Your task to perform on an android device: Open CNN.com Image 0: 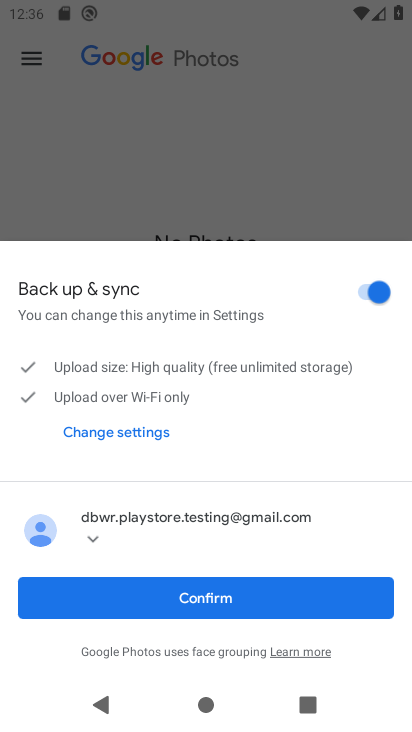
Step 0: press home button
Your task to perform on an android device: Open CNN.com Image 1: 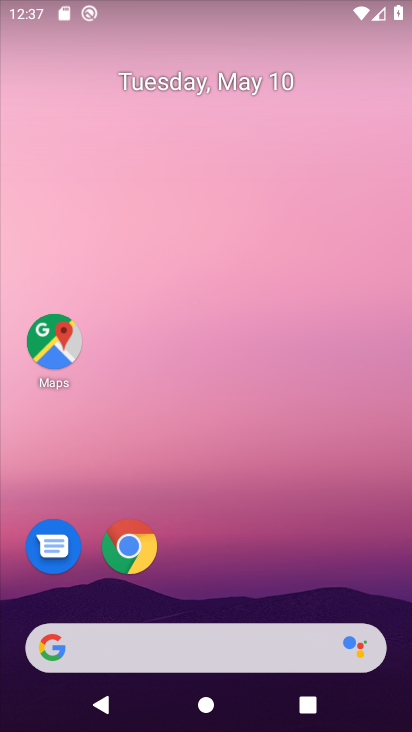
Step 1: click (129, 541)
Your task to perform on an android device: Open CNN.com Image 2: 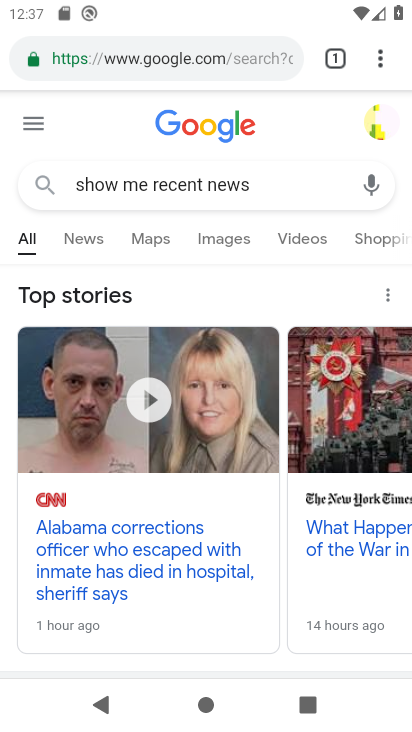
Step 2: drag from (371, 67) to (267, 116)
Your task to perform on an android device: Open CNN.com Image 3: 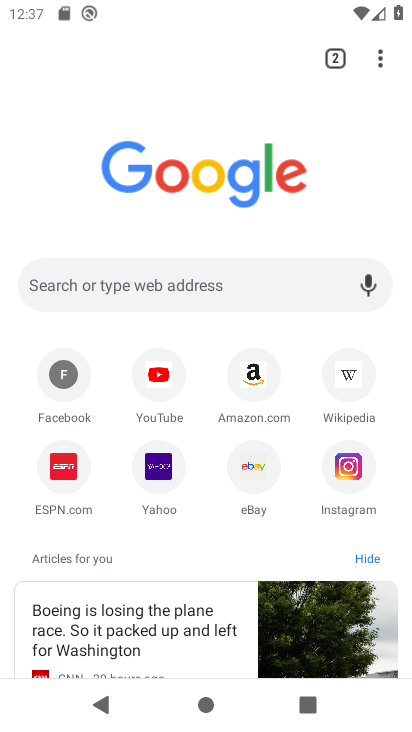
Step 3: click (226, 270)
Your task to perform on an android device: Open CNN.com Image 4: 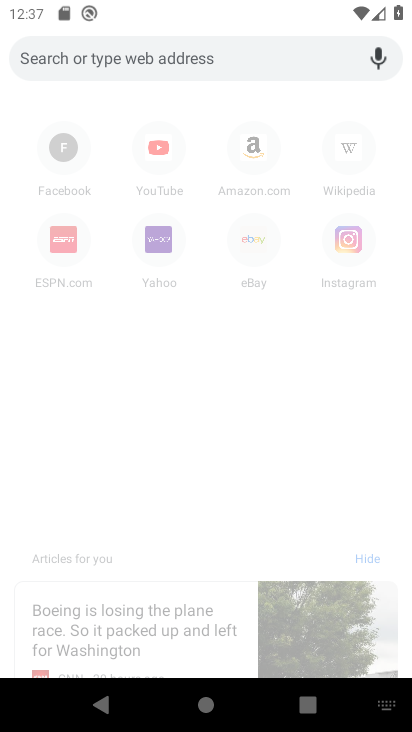
Step 4: type " CNN.com"
Your task to perform on an android device: Open CNN.com Image 5: 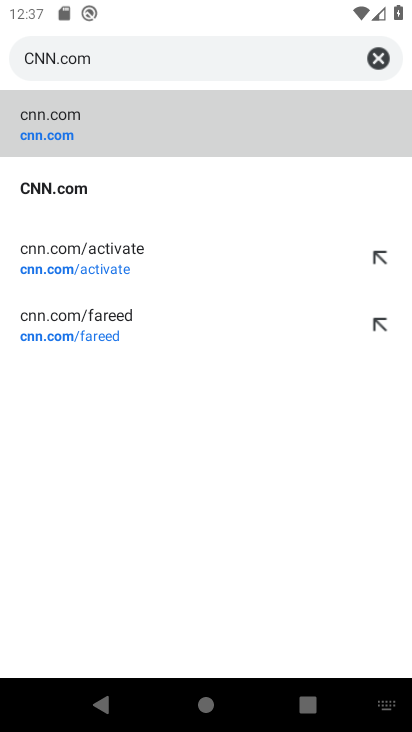
Step 5: click (181, 131)
Your task to perform on an android device: Open CNN.com Image 6: 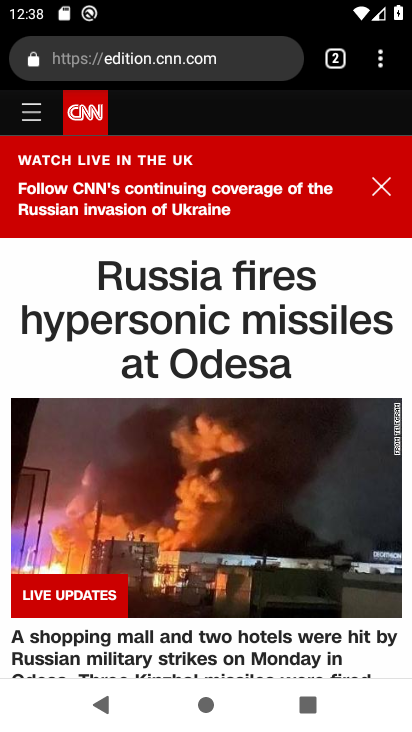
Step 6: task complete